Your task to perform on an android device: Open Google Chrome Image 0: 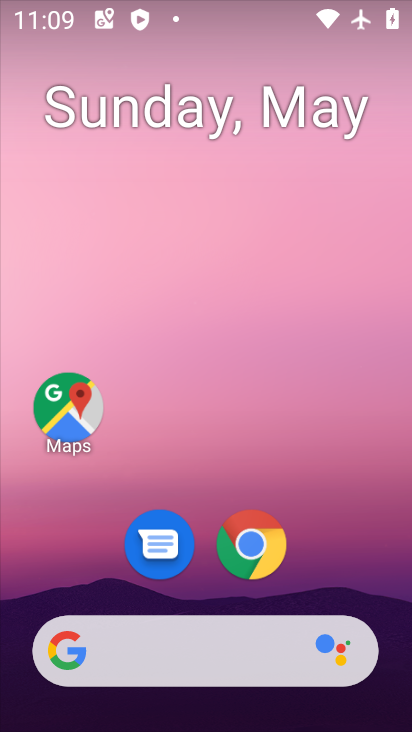
Step 0: click (249, 538)
Your task to perform on an android device: Open Google Chrome Image 1: 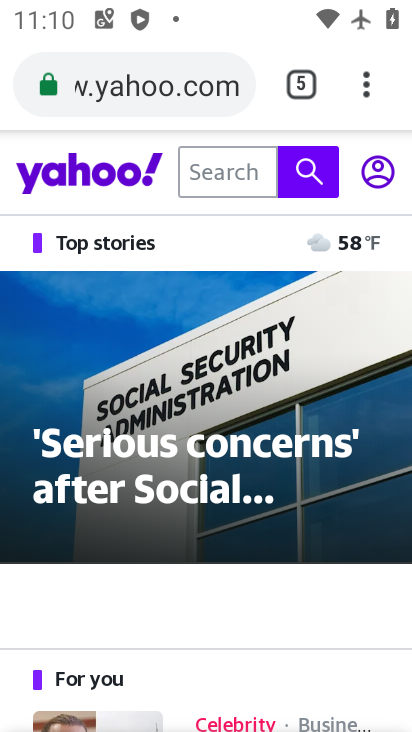
Step 1: task complete